Your task to perform on an android device: turn off smart reply in the gmail app Image 0: 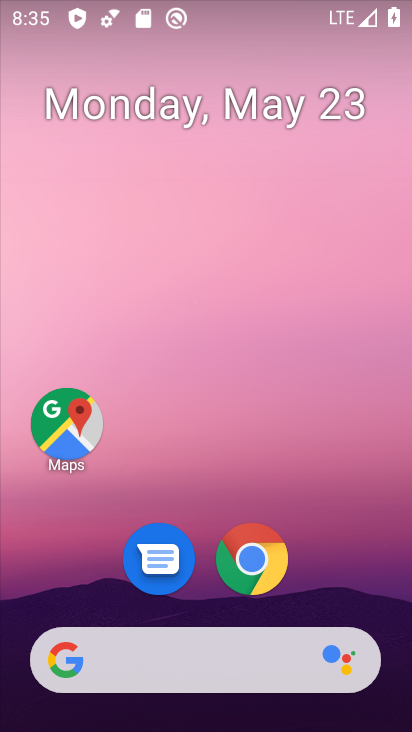
Step 0: drag from (336, 573) to (326, 54)
Your task to perform on an android device: turn off smart reply in the gmail app Image 1: 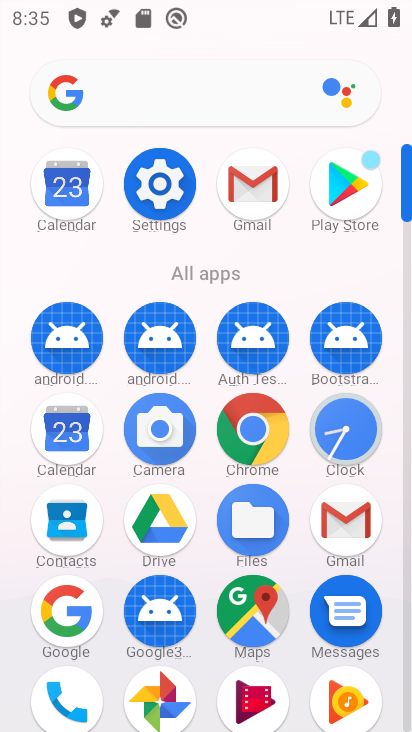
Step 1: click (248, 193)
Your task to perform on an android device: turn off smart reply in the gmail app Image 2: 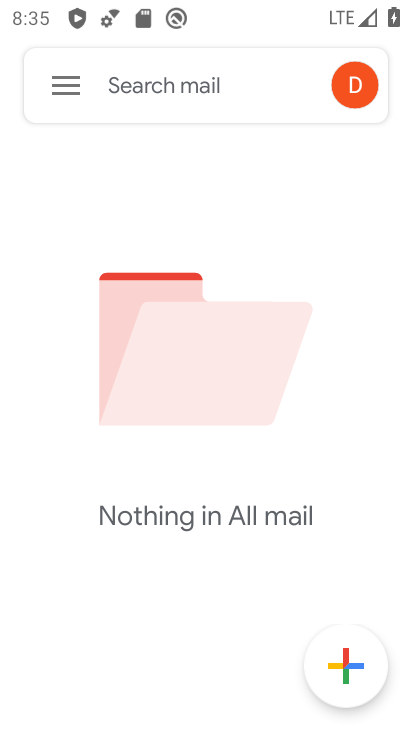
Step 2: click (54, 83)
Your task to perform on an android device: turn off smart reply in the gmail app Image 3: 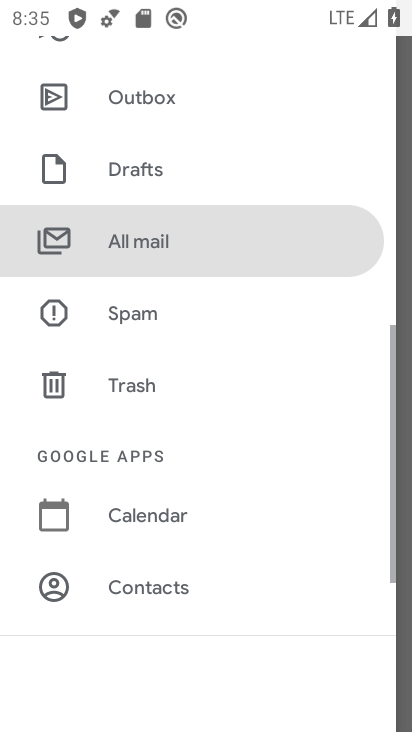
Step 3: drag from (169, 628) to (235, 311)
Your task to perform on an android device: turn off smart reply in the gmail app Image 4: 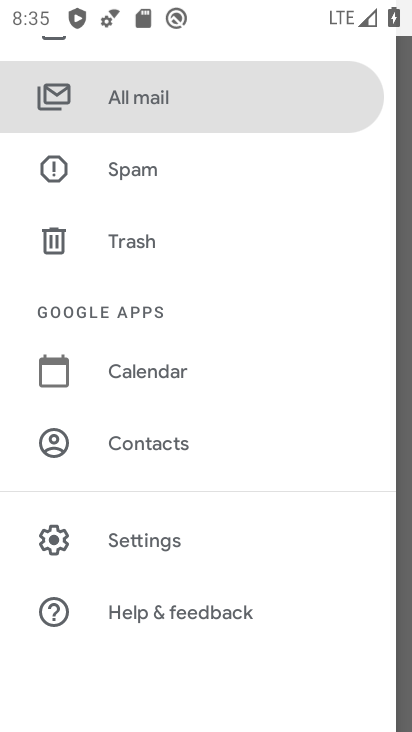
Step 4: click (109, 535)
Your task to perform on an android device: turn off smart reply in the gmail app Image 5: 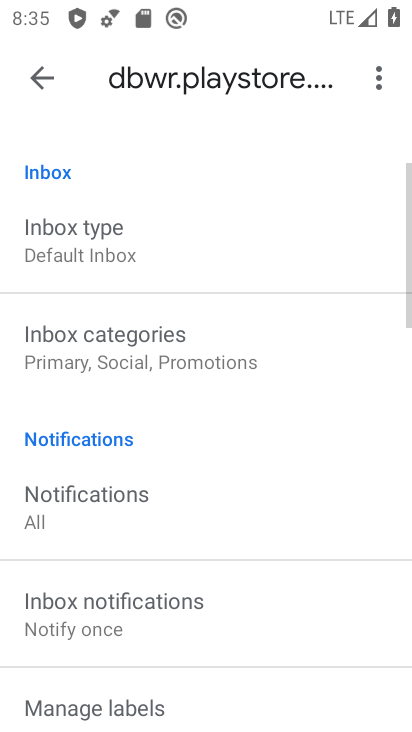
Step 5: task complete